Your task to perform on an android device: Go to Yahoo.com Image 0: 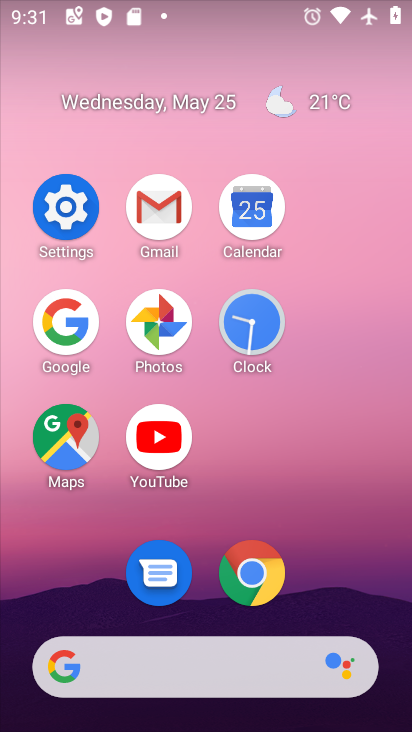
Step 0: click (255, 582)
Your task to perform on an android device: Go to Yahoo.com Image 1: 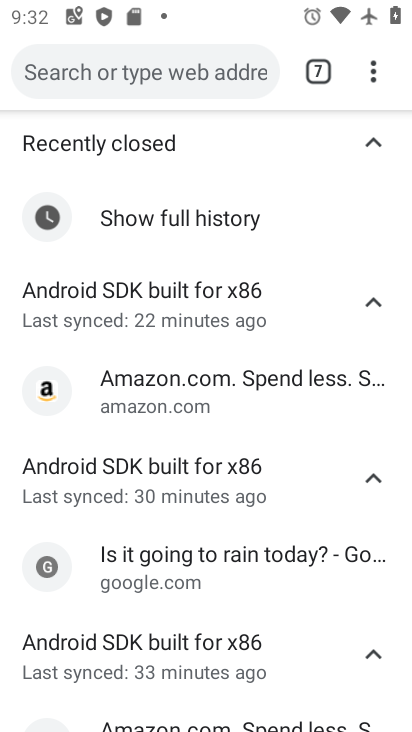
Step 1: click (332, 81)
Your task to perform on an android device: Go to Yahoo.com Image 2: 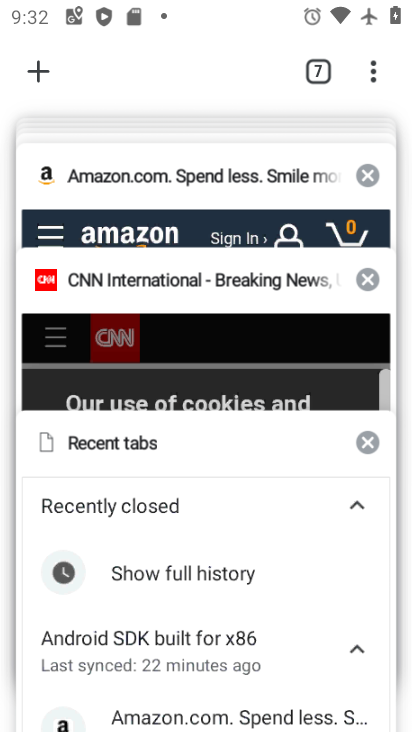
Step 2: drag from (179, 256) to (204, 575)
Your task to perform on an android device: Go to Yahoo.com Image 3: 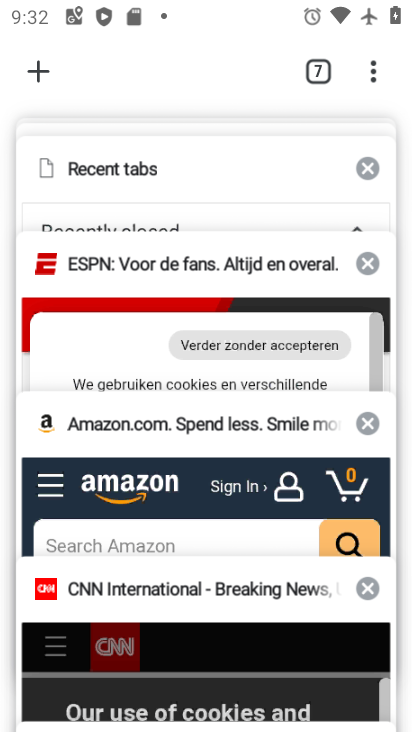
Step 3: drag from (198, 225) to (221, 593)
Your task to perform on an android device: Go to Yahoo.com Image 4: 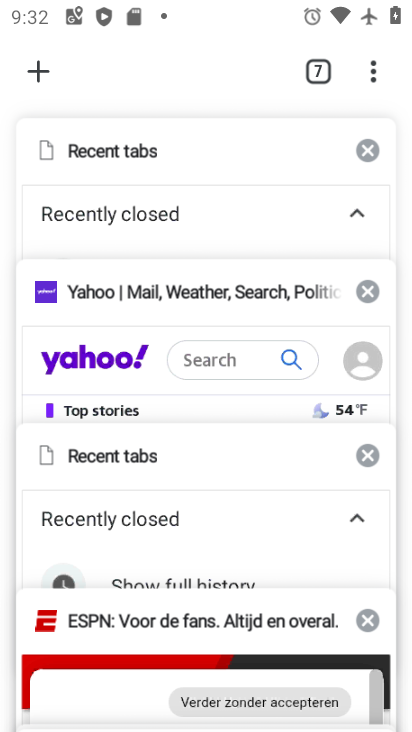
Step 4: click (122, 319)
Your task to perform on an android device: Go to Yahoo.com Image 5: 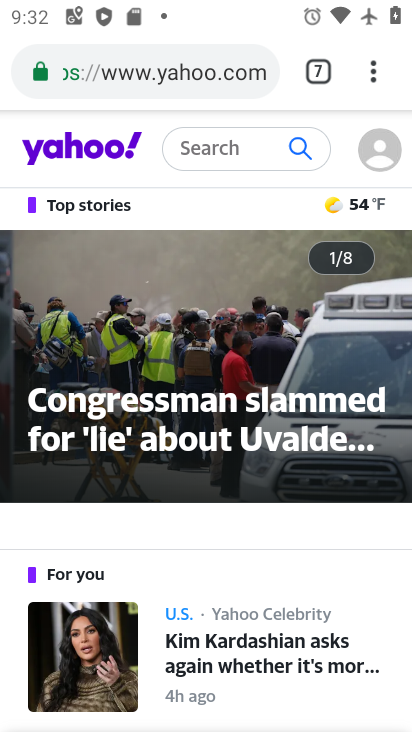
Step 5: task complete